Your task to perform on an android device: turn on the 12-hour format for clock Image 0: 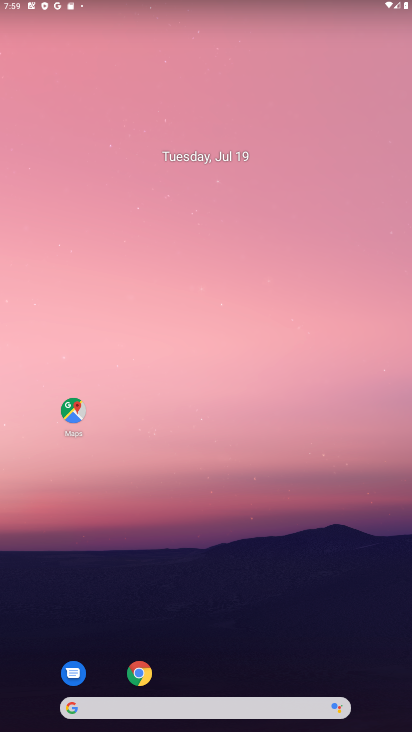
Step 0: drag from (293, 639) to (283, 233)
Your task to perform on an android device: turn on the 12-hour format for clock Image 1: 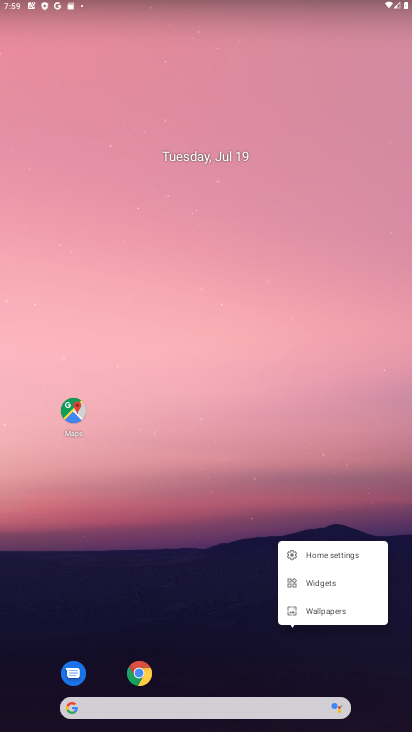
Step 1: click (200, 482)
Your task to perform on an android device: turn on the 12-hour format for clock Image 2: 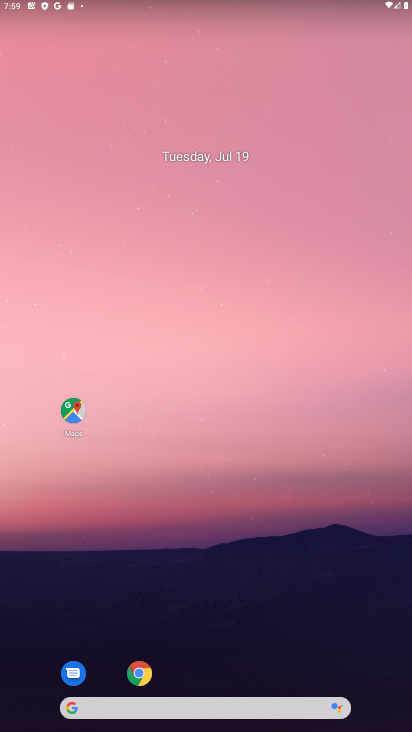
Step 2: drag from (199, 674) to (258, 119)
Your task to perform on an android device: turn on the 12-hour format for clock Image 3: 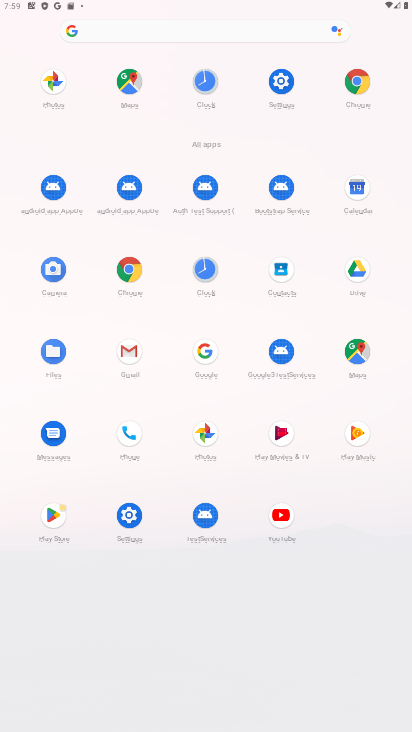
Step 3: click (205, 96)
Your task to perform on an android device: turn on the 12-hour format for clock Image 4: 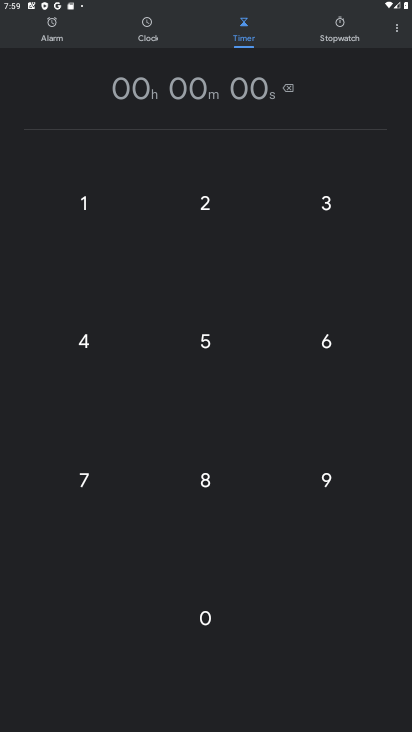
Step 4: click (400, 34)
Your task to perform on an android device: turn on the 12-hour format for clock Image 5: 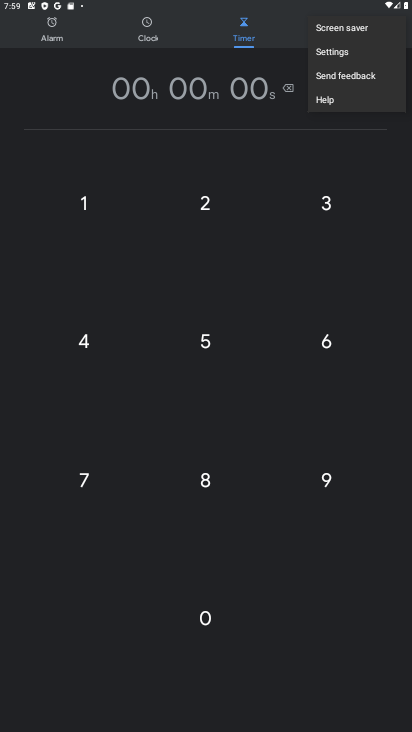
Step 5: click (334, 57)
Your task to perform on an android device: turn on the 12-hour format for clock Image 6: 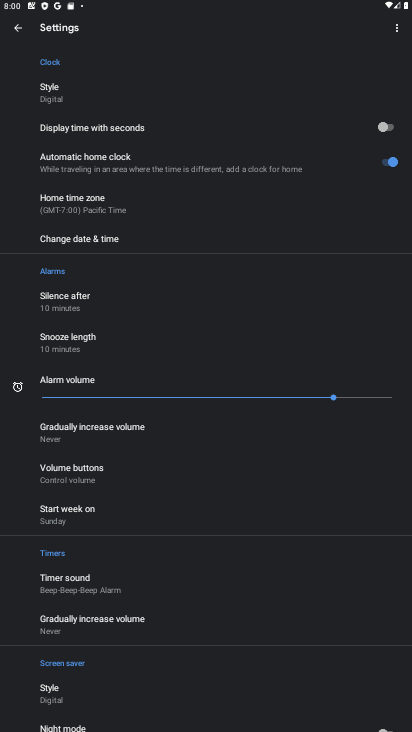
Step 6: task complete